Your task to perform on an android device: Open Google Chrome and click the shortcut for Amazon.com Image 0: 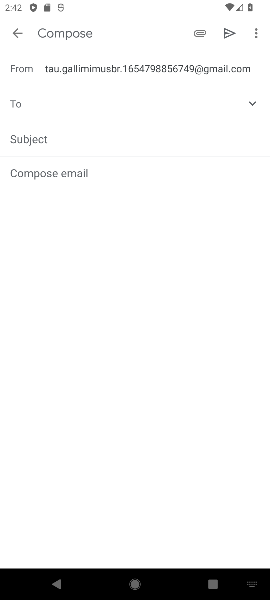
Step 0: press home button
Your task to perform on an android device: Open Google Chrome and click the shortcut for Amazon.com Image 1: 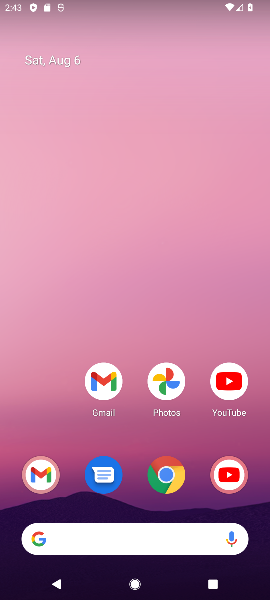
Step 1: click (164, 485)
Your task to perform on an android device: Open Google Chrome and click the shortcut for Amazon.com Image 2: 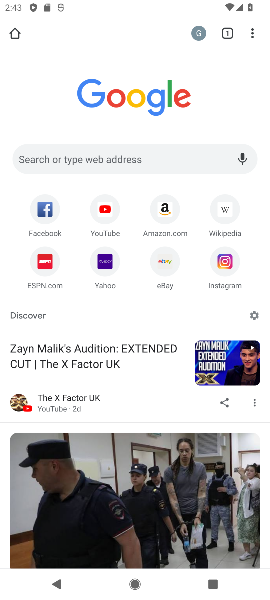
Step 2: click (167, 211)
Your task to perform on an android device: Open Google Chrome and click the shortcut for Amazon.com Image 3: 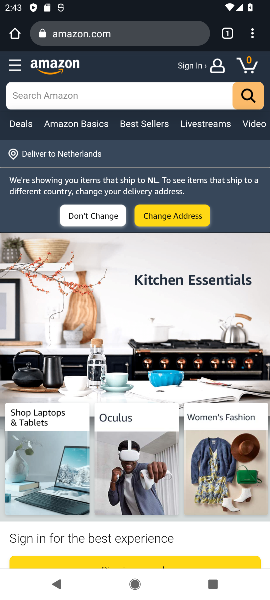
Step 3: task complete